Your task to perform on an android device: turn on priority inbox in the gmail app Image 0: 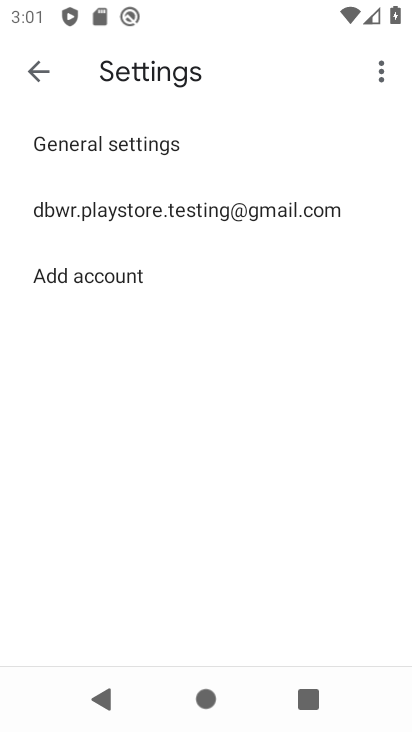
Step 0: drag from (379, 315) to (371, 3)
Your task to perform on an android device: turn on priority inbox in the gmail app Image 1: 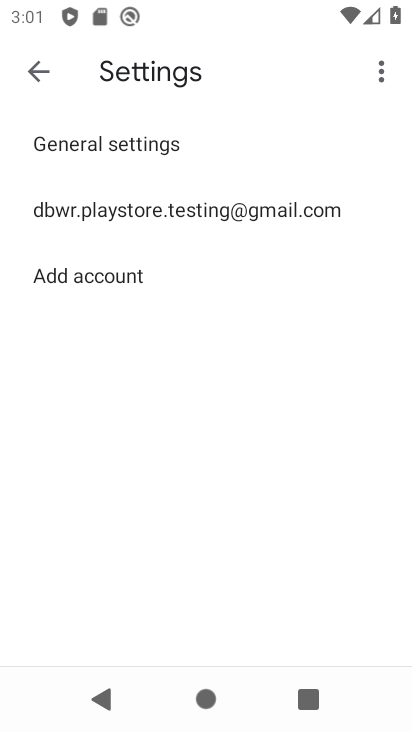
Step 1: click (33, 66)
Your task to perform on an android device: turn on priority inbox in the gmail app Image 2: 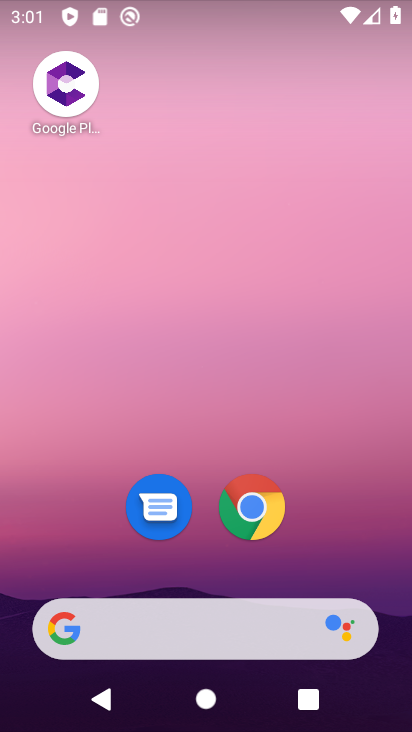
Step 2: drag from (379, 534) to (332, 182)
Your task to perform on an android device: turn on priority inbox in the gmail app Image 3: 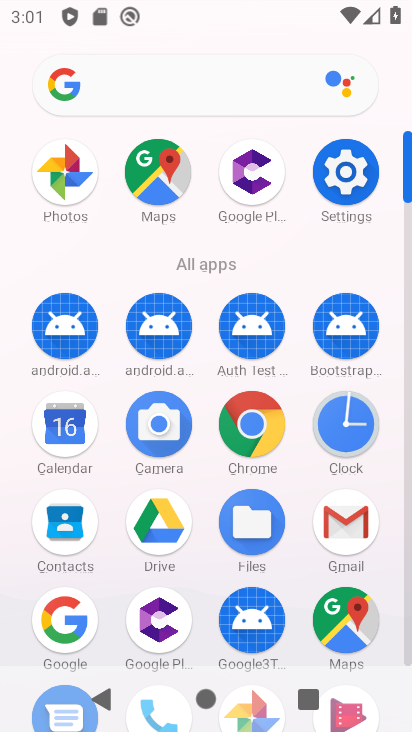
Step 3: drag from (372, 524) to (345, 489)
Your task to perform on an android device: turn on priority inbox in the gmail app Image 4: 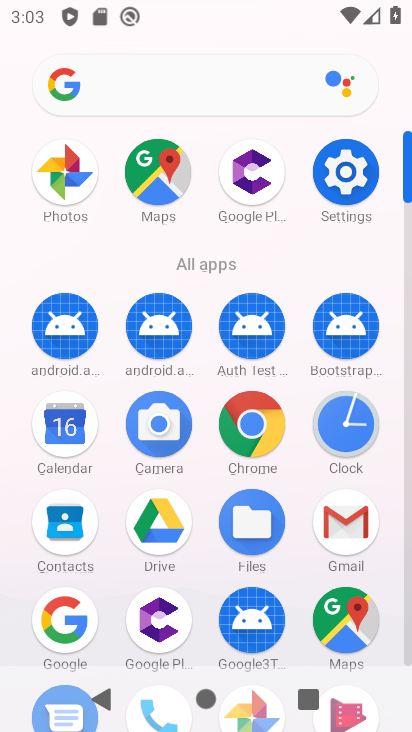
Step 4: click (342, 533)
Your task to perform on an android device: turn on priority inbox in the gmail app Image 5: 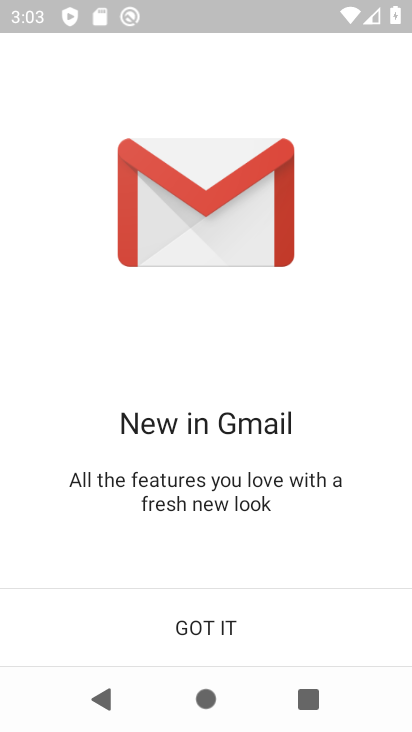
Step 5: click (204, 627)
Your task to perform on an android device: turn on priority inbox in the gmail app Image 6: 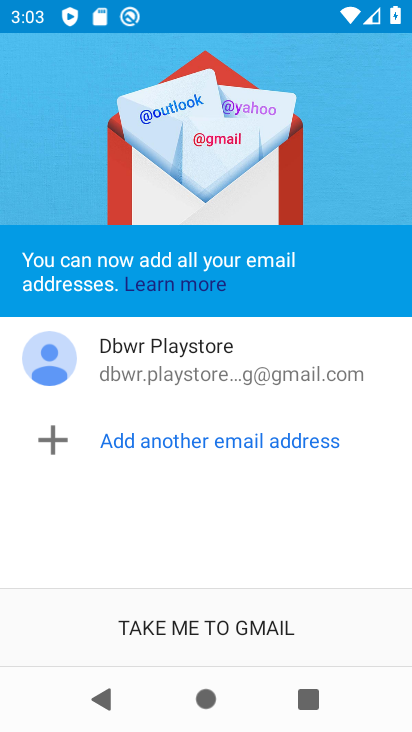
Step 6: click (188, 614)
Your task to perform on an android device: turn on priority inbox in the gmail app Image 7: 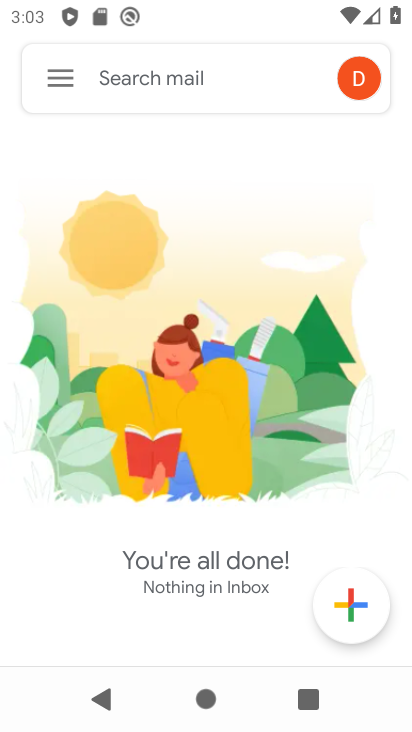
Step 7: click (65, 73)
Your task to perform on an android device: turn on priority inbox in the gmail app Image 8: 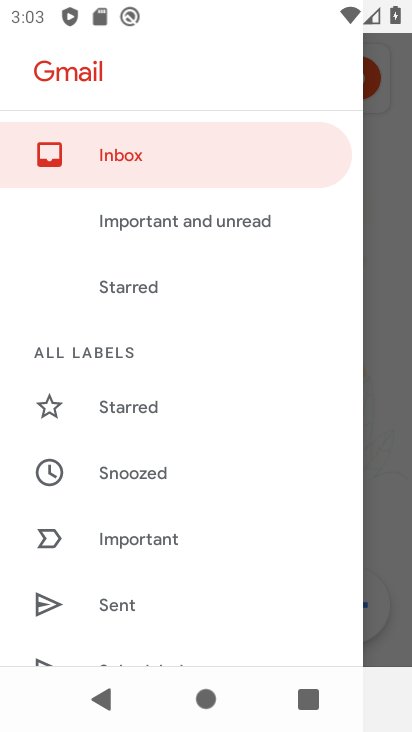
Step 8: drag from (247, 622) to (191, 231)
Your task to perform on an android device: turn on priority inbox in the gmail app Image 9: 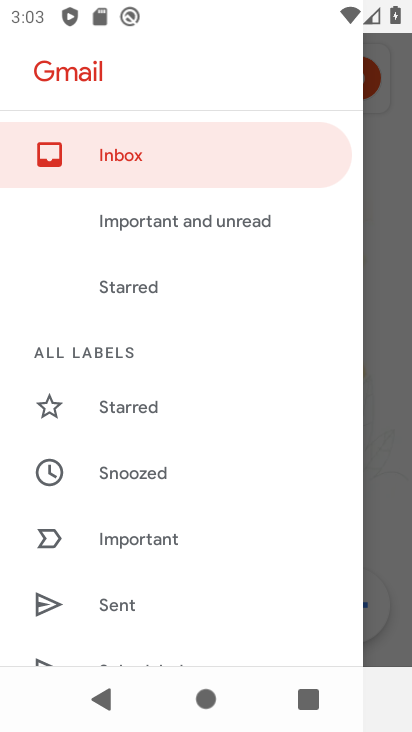
Step 9: drag from (120, 529) to (140, 91)
Your task to perform on an android device: turn on priority inbox in the gmail app Image 10: 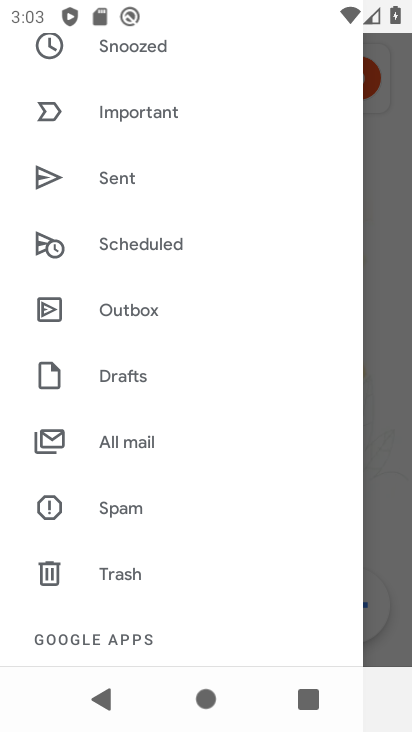
Step 10: drag from (169, 593) to (139, 4)
Your task to perform on an android device: turn on priority inbox in the gmail app Image 11: 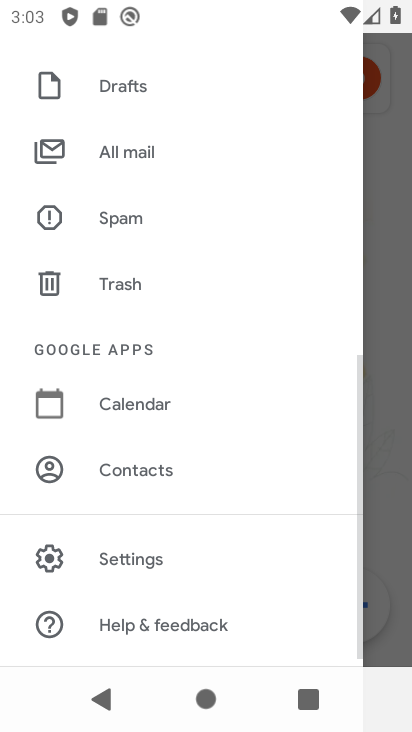
Step 11: click (143, 557)
Your task to perform on an android device: turn on priority inbox in the gmail app Image 12: 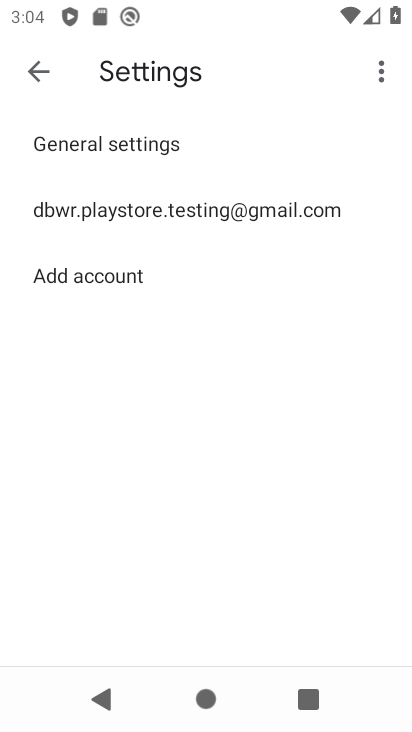
Step 12: click (79, 209)
Your task to perform on an android device: turn on priority inbox in the gmail app Image 13: 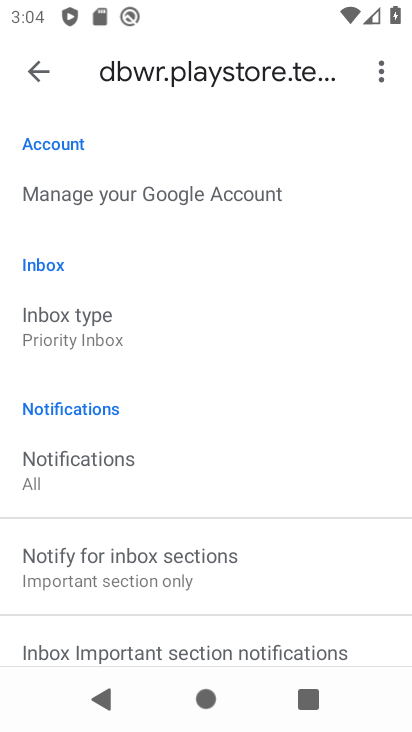
Step 13: task complete